Your task to perform on an android device: Open Yahoo.com Image 0: 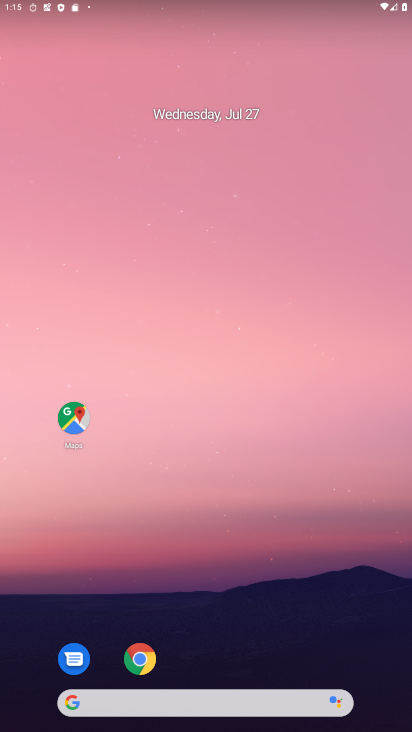
Step 0: press home button
Your task to perform on an android device: Open Yahoo.com Image 1: 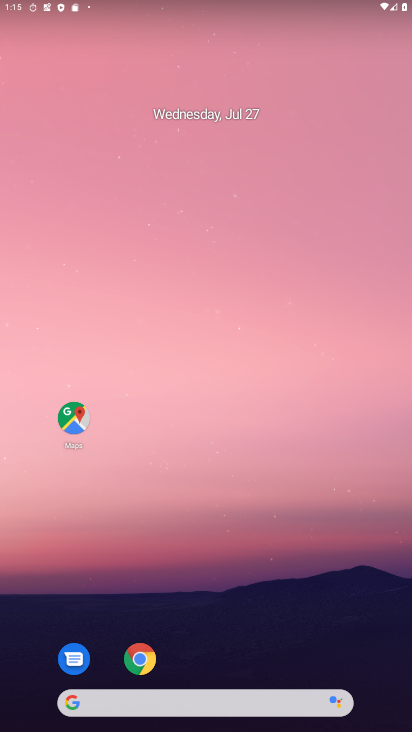
Step 1: click (138, 652)
Your task to perform on an android device: Open Yahoo.com Image 2: 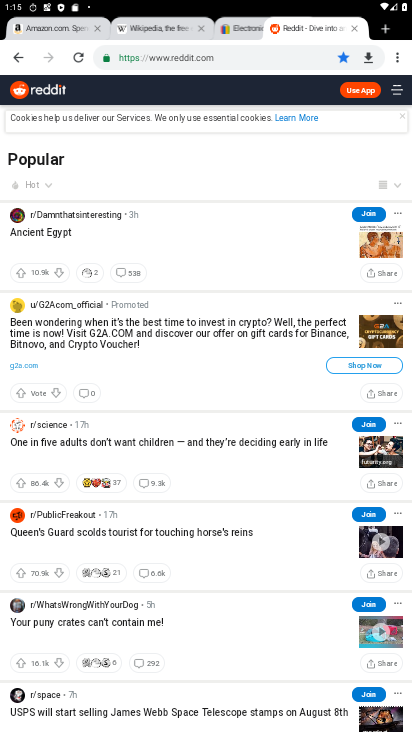
Step 2: click (381, 29)
Your task to perform on an android device: Open Yahoo.com Image 3: 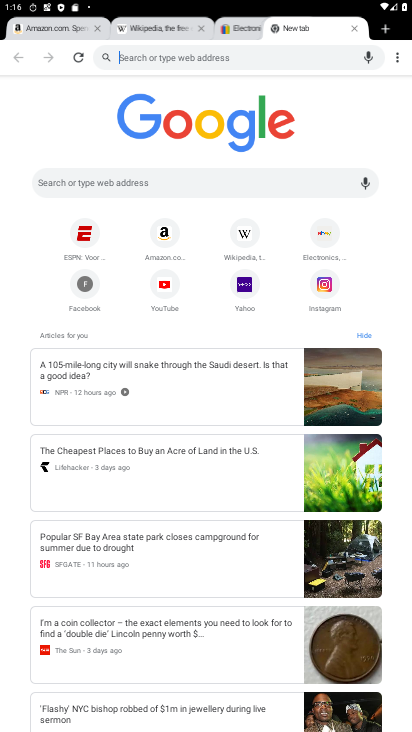
Step 3: click (238, 278)
Your task to perform on an android device: Open Yahoo.com Image 4: 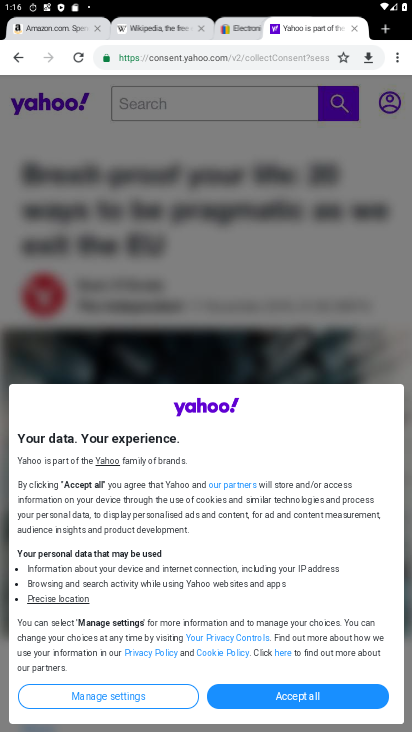
Step 4: click (299, 696)
Your task to perform on an android device: Open Yahoo.com Image 5: 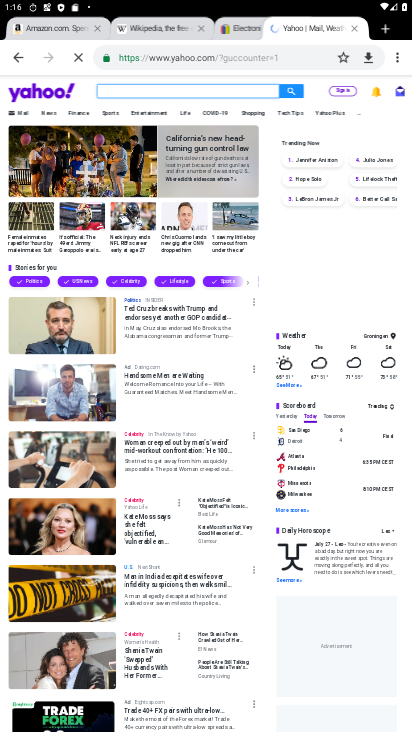
Step 5: task complete